Your task to perform on an android device: turn on priority inbox in the gmail app Image 0: 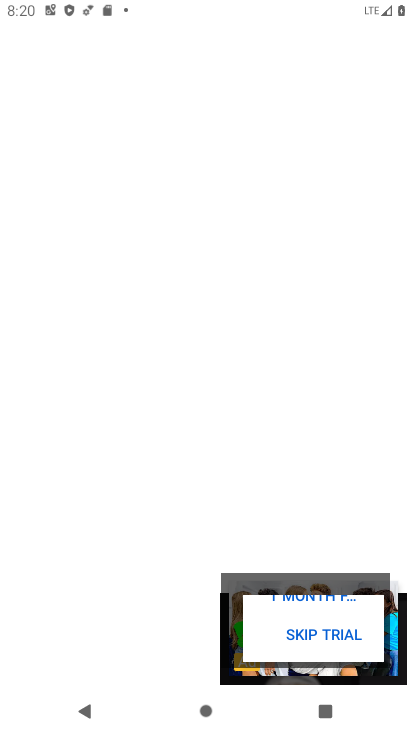
Step 0: press home button
Your task to perform on an android device: turn on priority inbox in the gmail app Image 1: 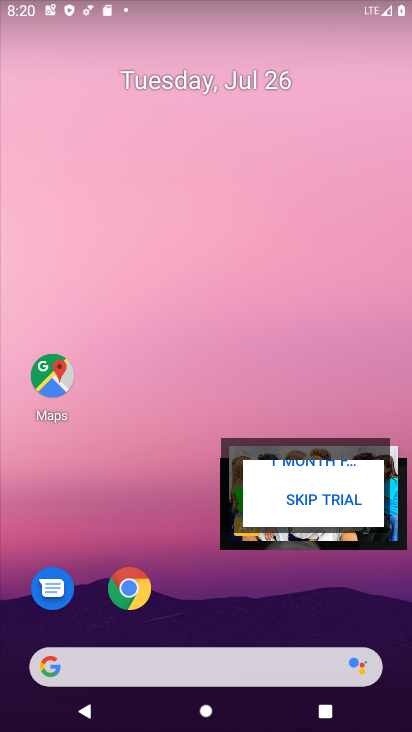
Step 1: drag from (211, 588) to (185, 19)
Your task to perform on an android device: turn on priority inbox in the gmail app Image 2: 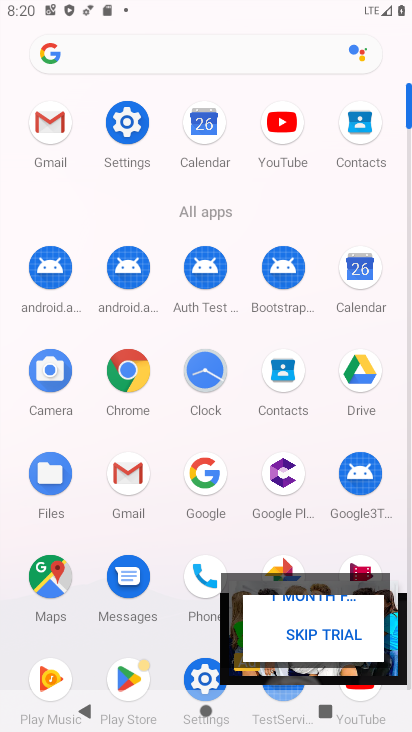
Step 2: click (49, 120)
Your task to perform on an android device: turn on priority inbox in the gmail app Image 3: 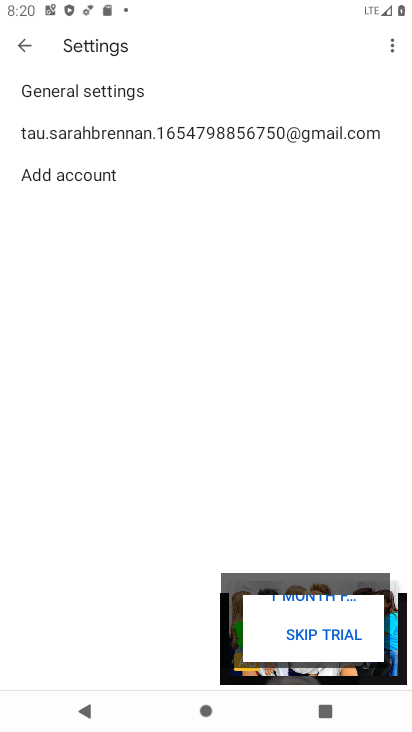
Step 3: click (59, 128)
Your task to perform on an android device: turn on priority inbox in the gmail app Image 4: 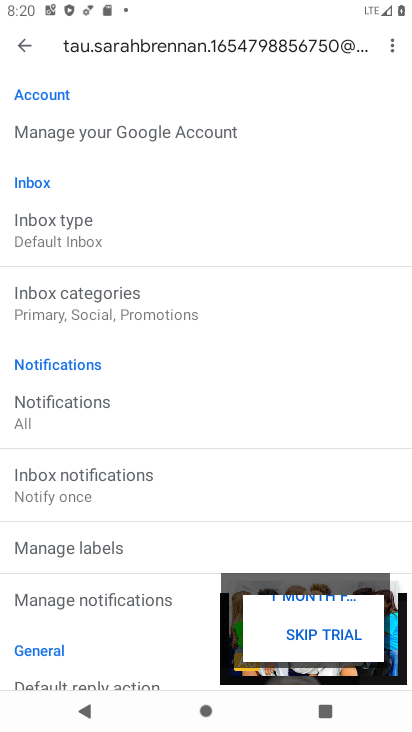
Step 4: click (68, 226)
Your task to perform on an android device: turn on priority inbox in the gmail app Image 5: 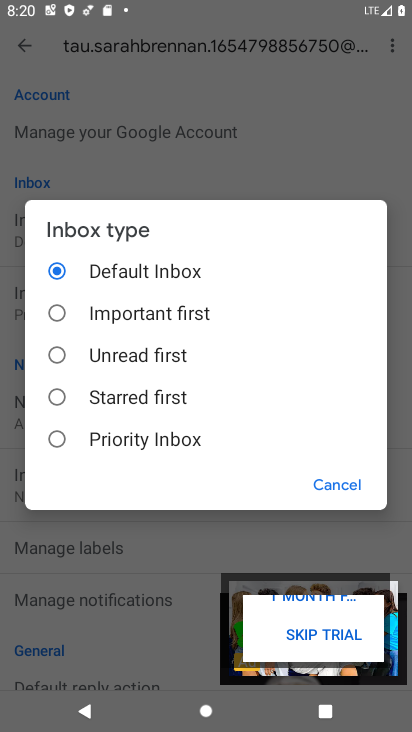
Step 5: click (90, 432)
Your task to perform on an android device: turn on priority inbox in the gmail app Image 6: 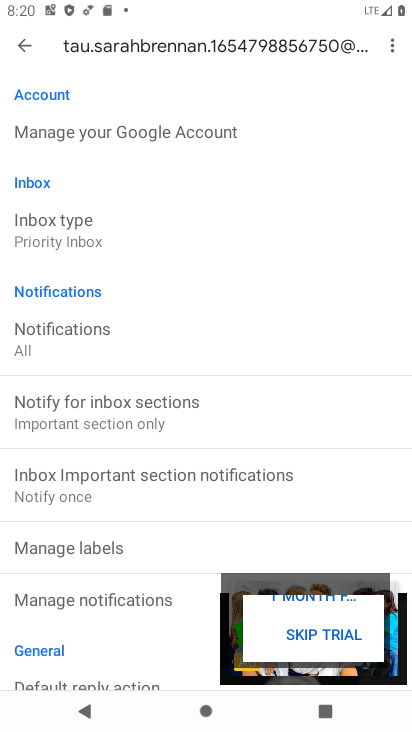
Step 6: task complete